Your task to perform on an android device: Go to Reddit.com Image 0: 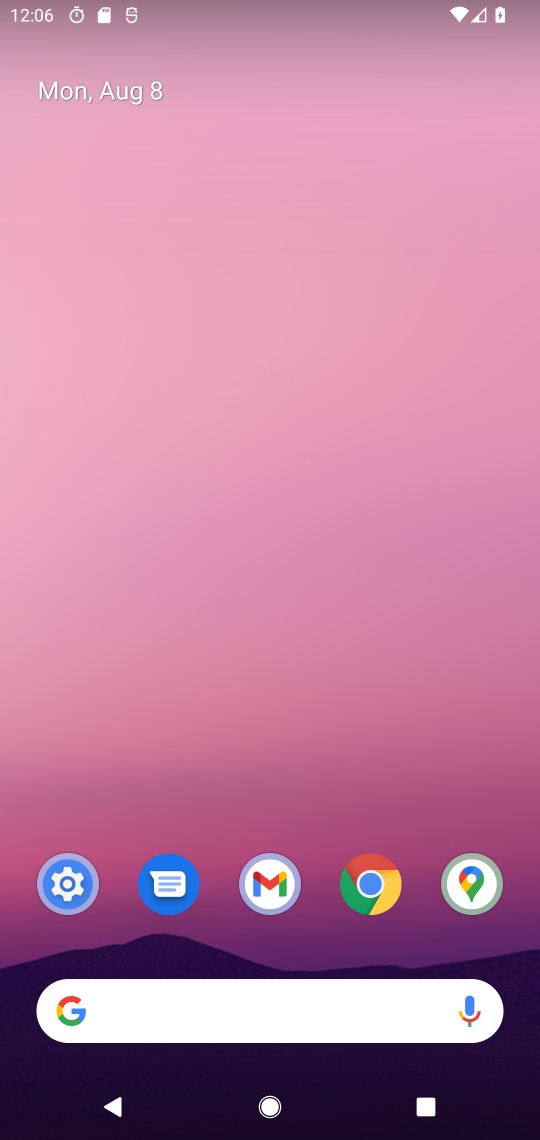
Step 0: press home button
Your task to perform on an android device: Go to Reddit.com Image 1: 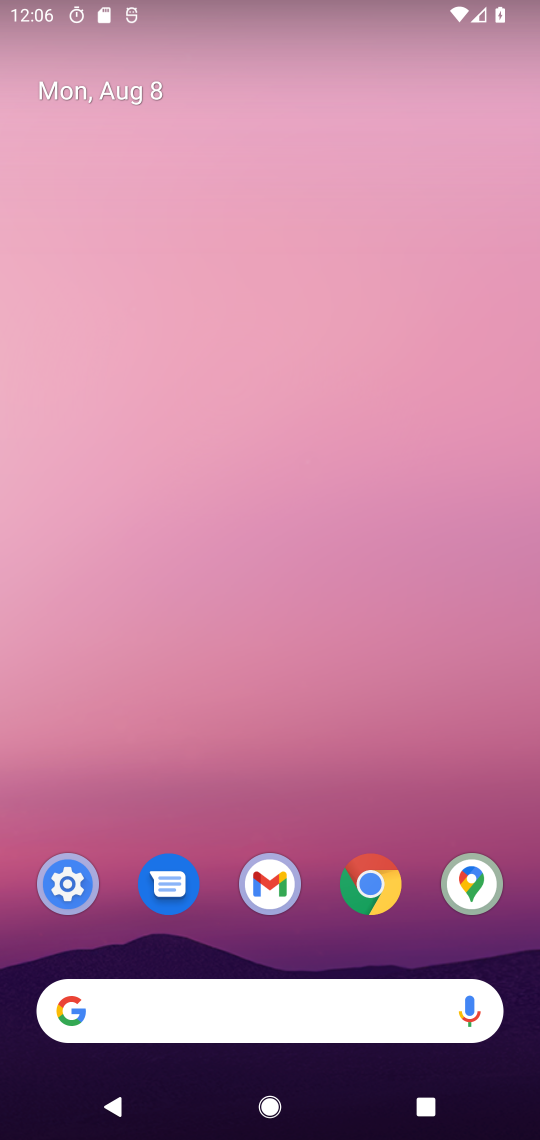
Step 1: click (364, 883)
Your task to perform on an android device: Go to Reddit.com Image 2: 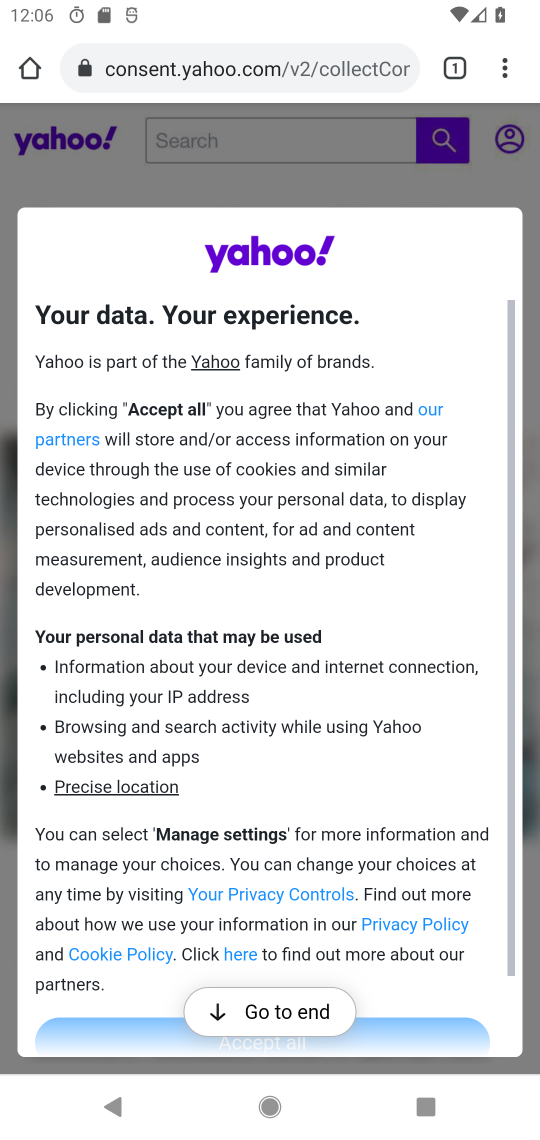
Step 2: click (287, 71)
Your task to perform on an android device: Go to Reddit.com Image 3: 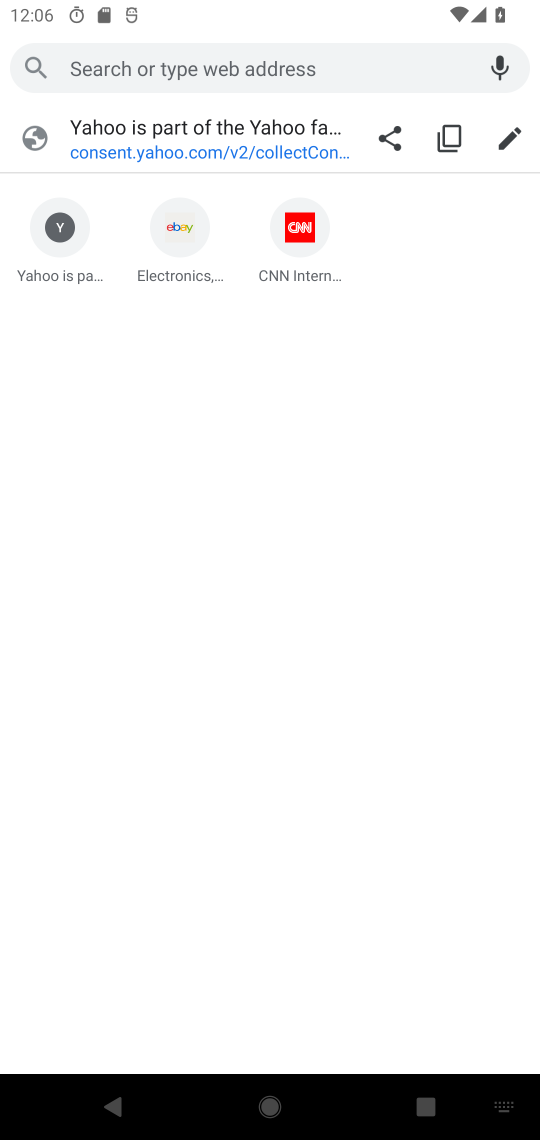
Step 3: type "www.reddit.com"
Your task to perform on an android device: Go to Reddit.com Image 4: 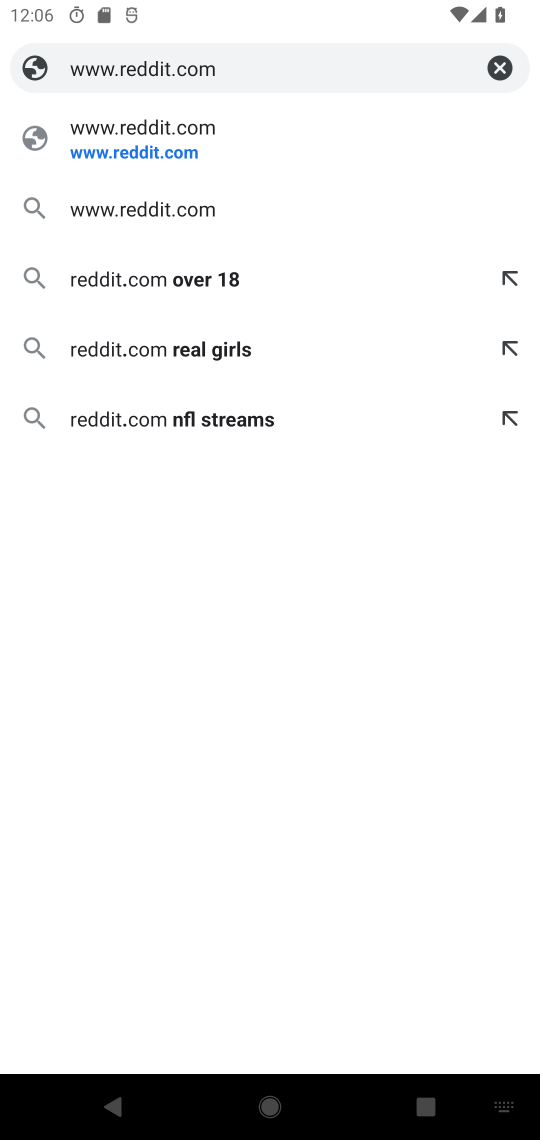
Step 4: click (178, 130)
Your task to perform on an android device: Go to Reddit.com Image 5: 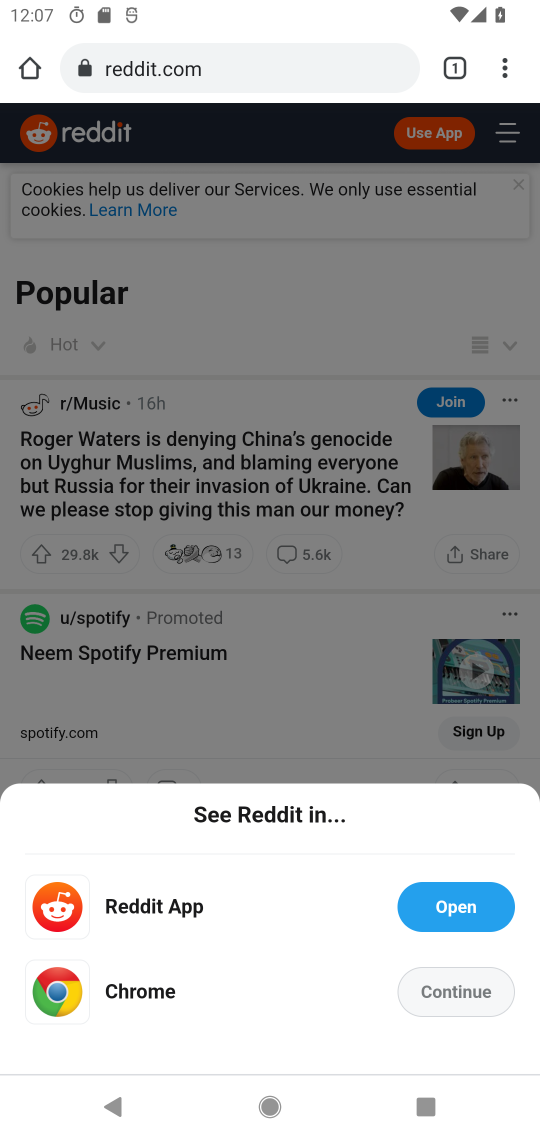
Step 5: task complete